Your task to perform on an android device: set default search engine in the chrome app Image 0: 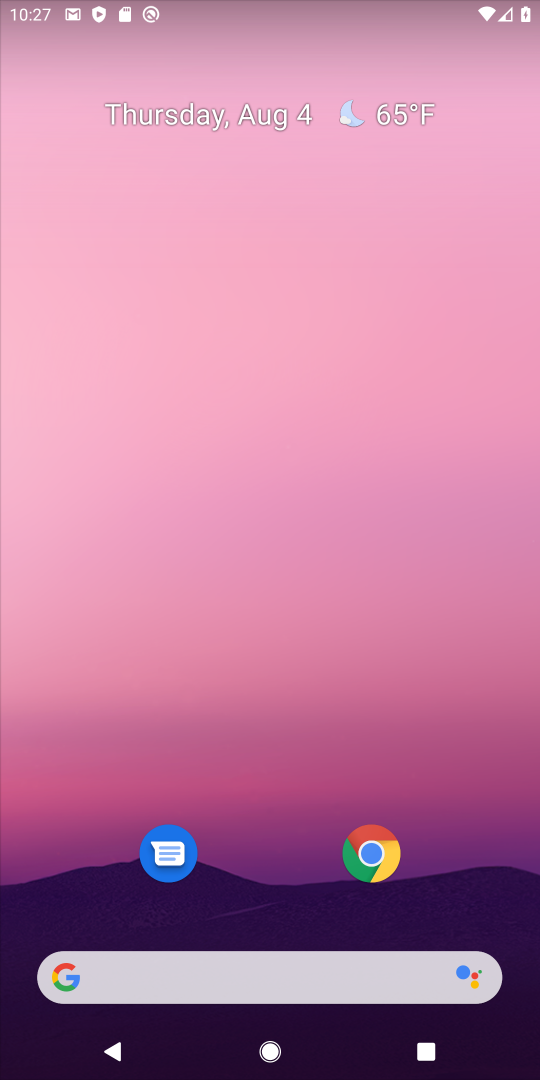
Step 0: drag from (358, 935) to (514, 243)
Your task to perform on an android device: set default search engine in the chrome app Image 1: 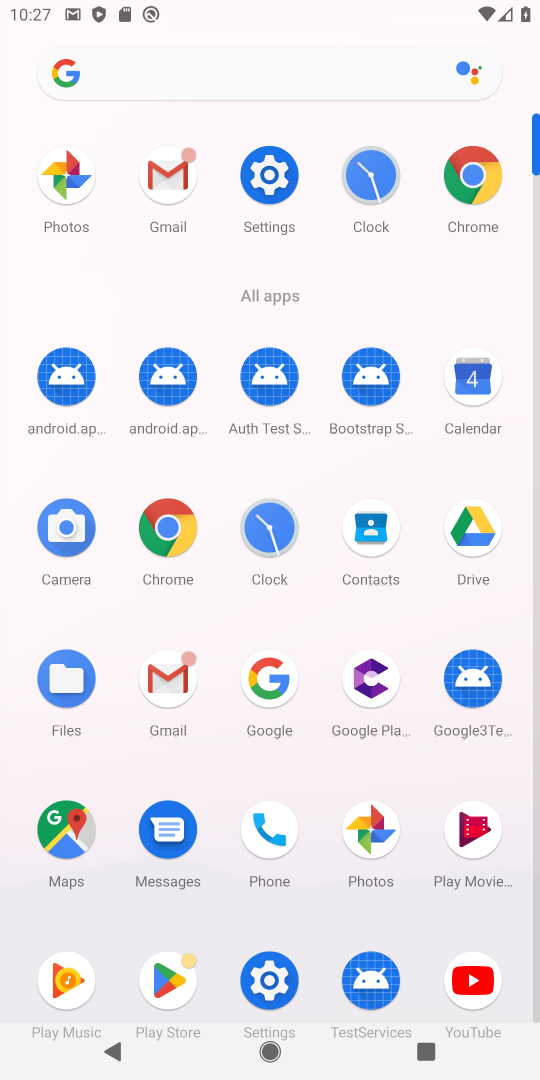
Step 1: click (154, 513)
Your task to perform on an android device: set default search engine in the chrome app Image 2: 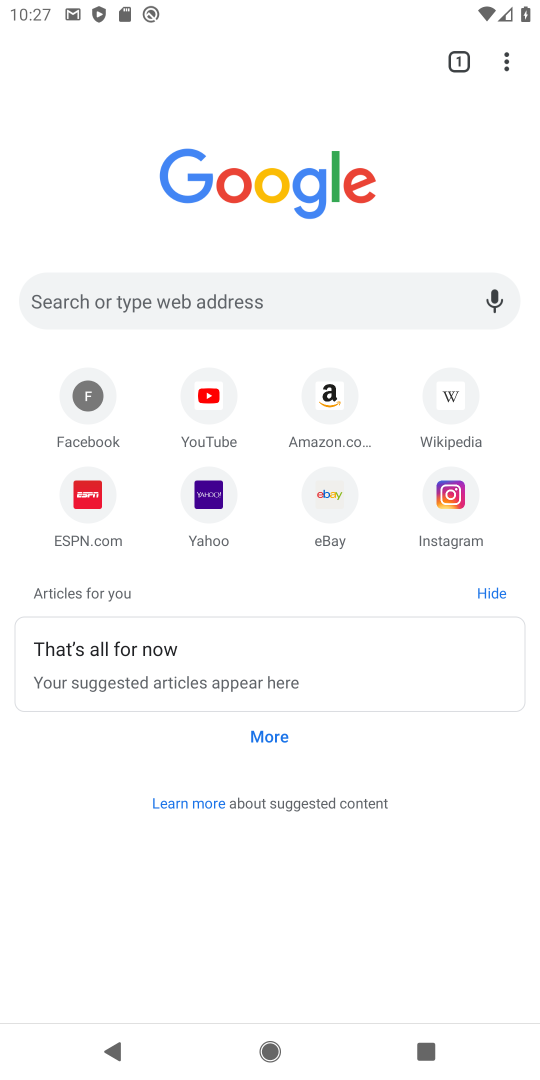
Step 2: click (500, 44)
Your task to perform on an android device: set default search engine in the chrome app Image 3: 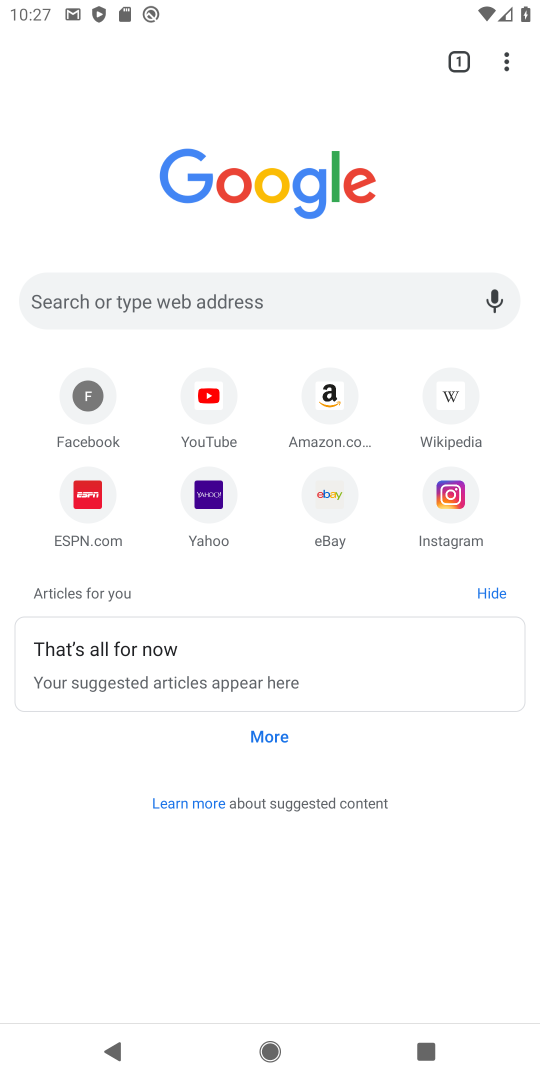
Step 3: click (507, 59)
Your task to perform on an android device: set default search engine in the chrome app Image 4: 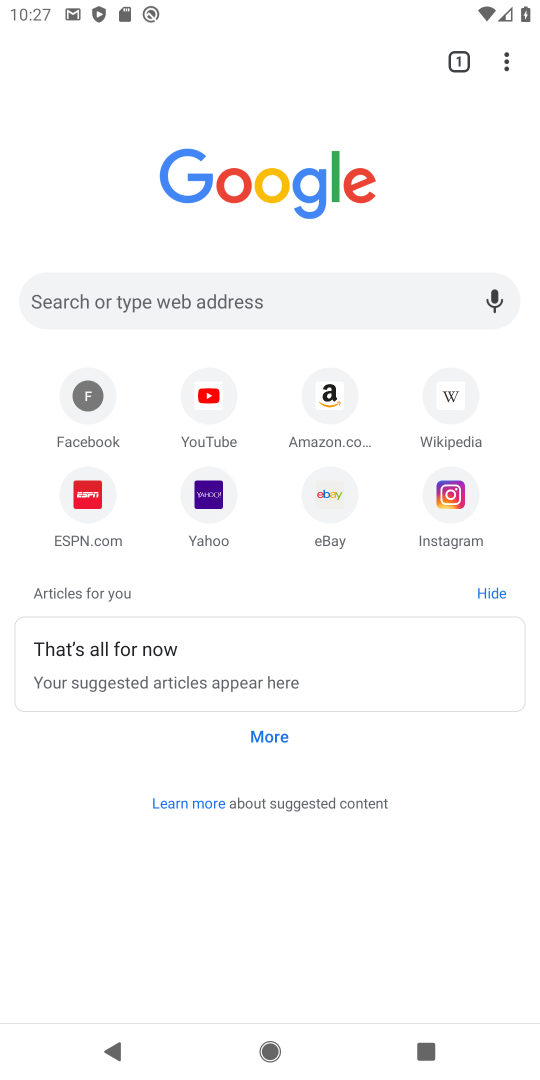
Step 4: drag from (504, 59) to (301, 502)
Your task to perform on an android device: set default search engine in the chrome app Image 5: 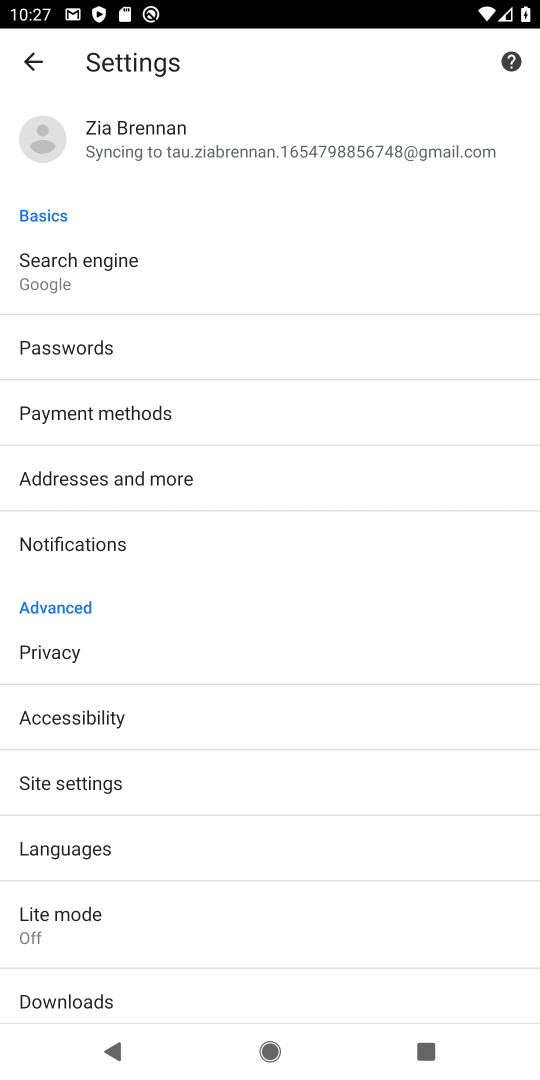
Step 5: click (96, 299)
Your task to perform on an android device: set default search engine in the chrome app Image 6: 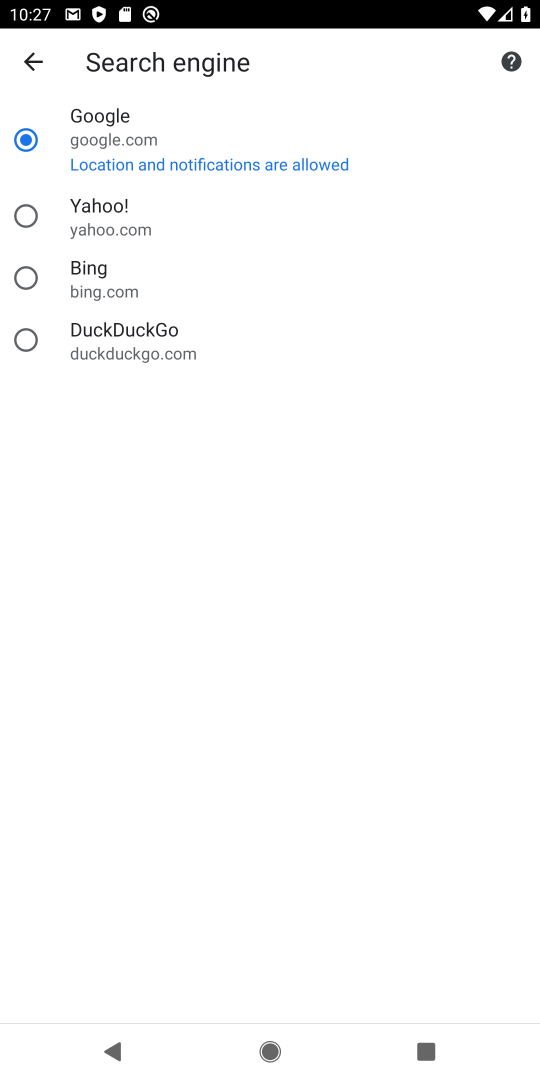
Step 6: click (34, 137)
Your task to perform on an android device: set default search engine in the chrome app Image 7: 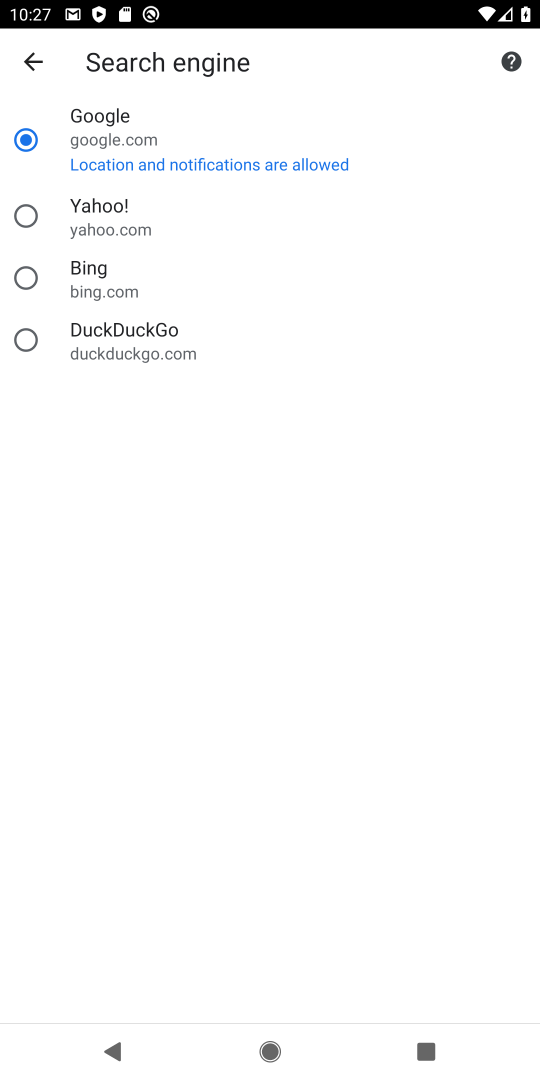
Step 7: task complete